Your task to perform on an android device: Set an alarm for 6pm Image 0: 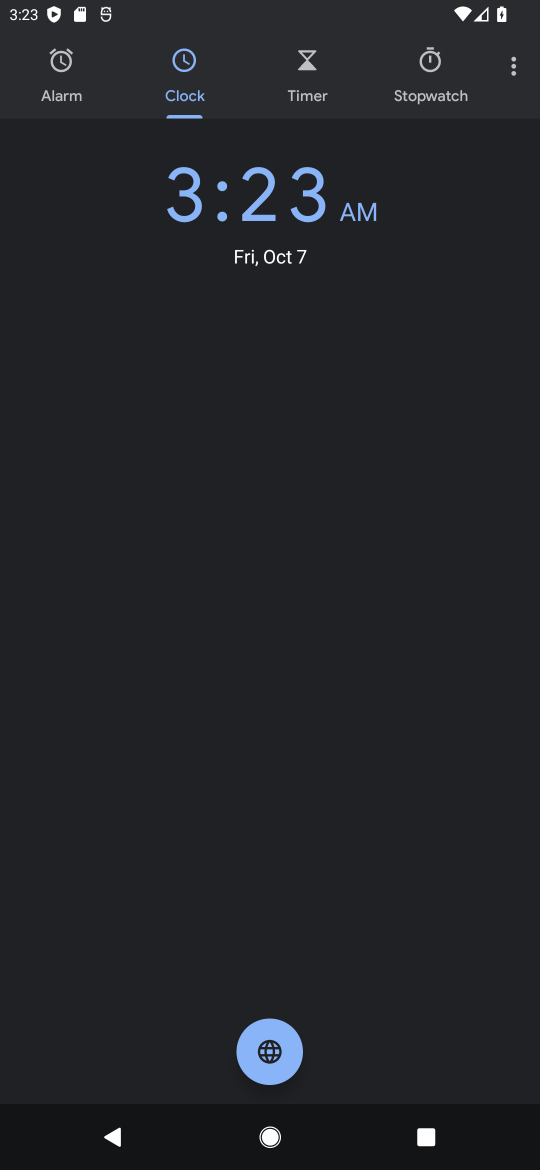
Step 0: click (59, 97)
Your task to perform on an android device: Set an alarm for 6pm Image 1: 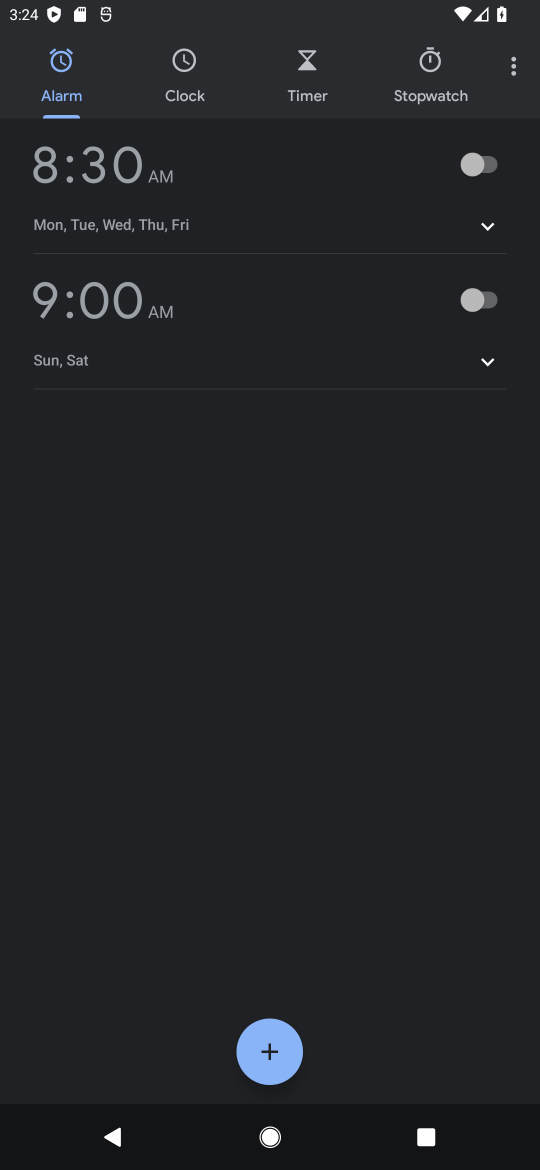
Step 1: click (282, 1066)
Your task to perform on an android device: Set an alarm for 6pm Image 2: 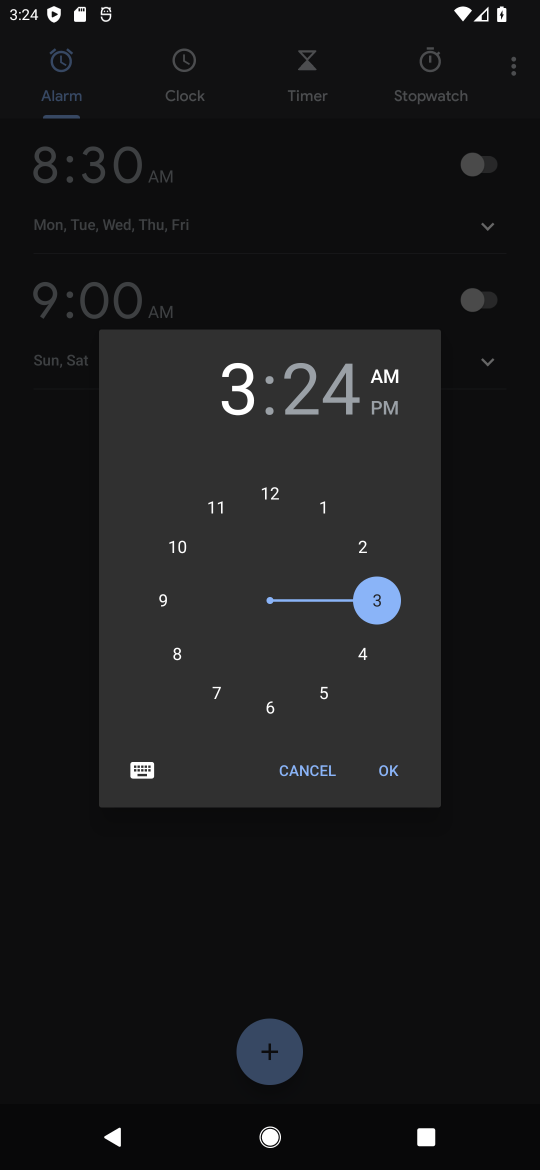
Step 2: click (264, 695)
Your task to perform on an android device: Set an alarm for 6pm Image 3: 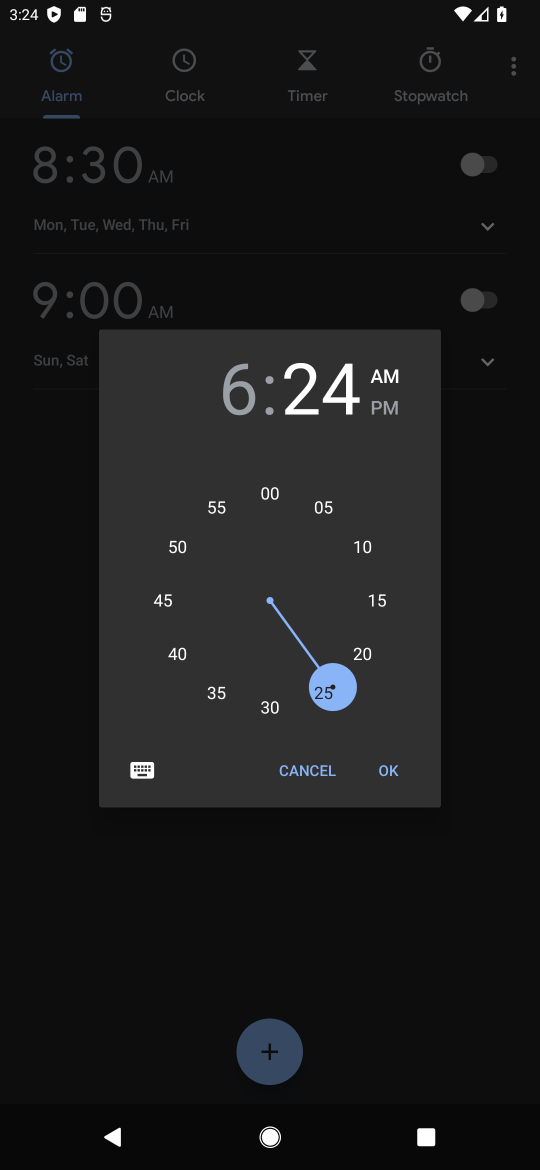
Step 3: click (272, 489)
Your task to perform on an android device: Set an alarm for 6pm Image 4: 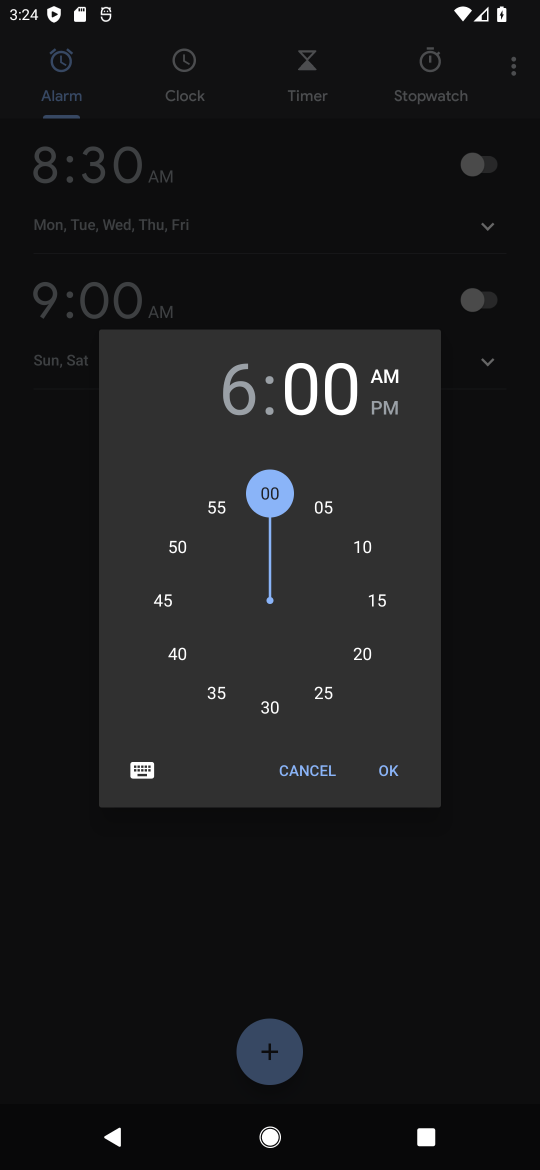
Step 4: click (382, 410)
Your task to perform on an android device: Set an alarm for 6pm Image 5: 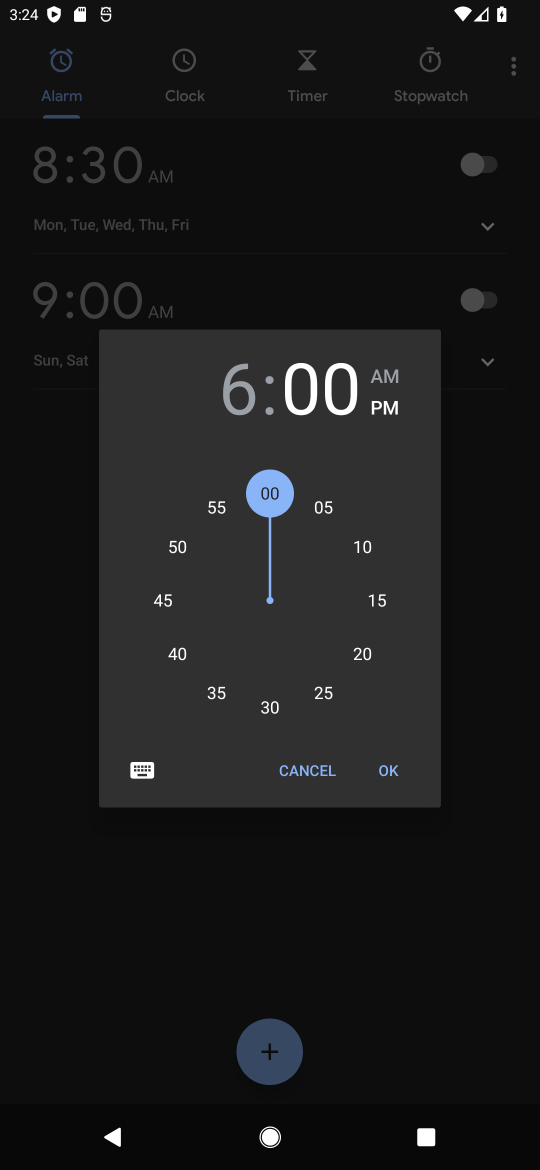
Step 5: click (380, 772)
Your task to perform on an android device: Set an alarm for 6pm Image 6: 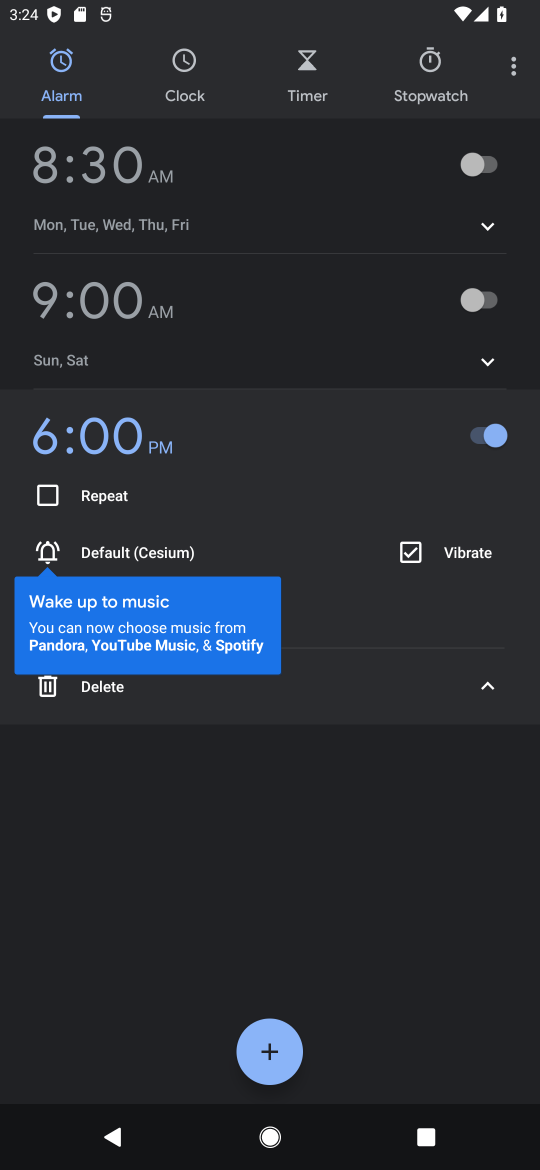
Step 6: task complete